Your task to perform on an android device: turn off location history Image 0: 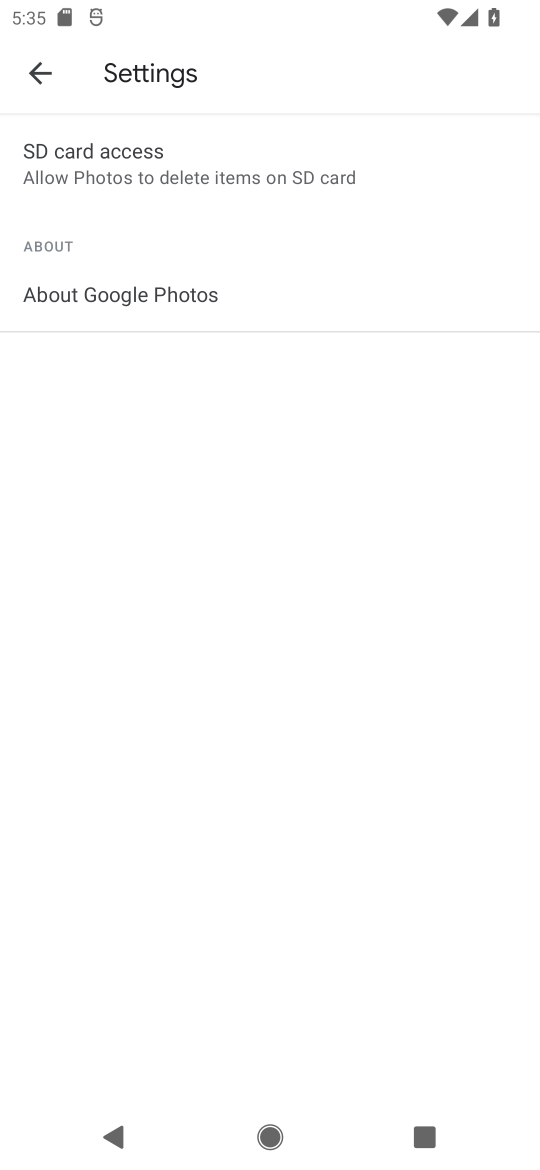
Step 0: press home button
Your task to perform on an android device: turn off location history Image 1: 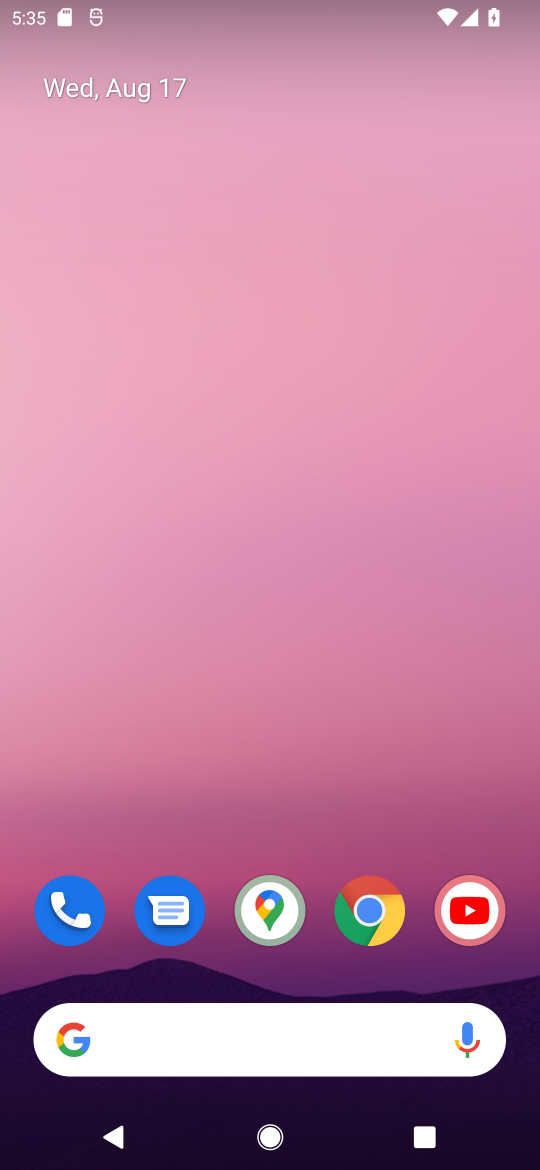
Step 1: click (374, 882)
Your task to perform on an android device: turn off location history Image 2: 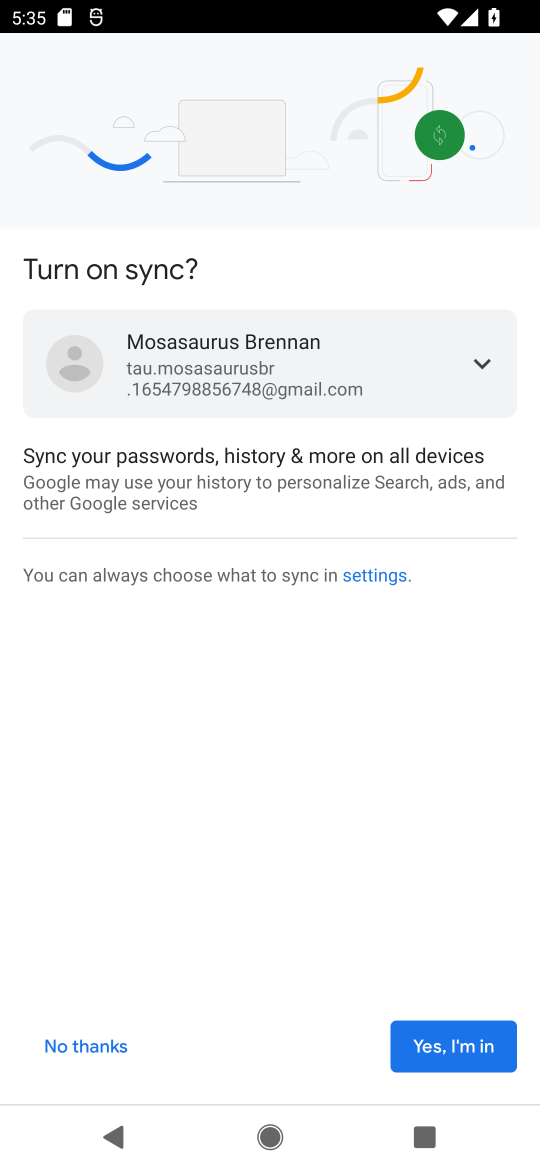
Step 2: task complete